Your task to perform on an android device: Do I have any events tomorrow? Image 0: 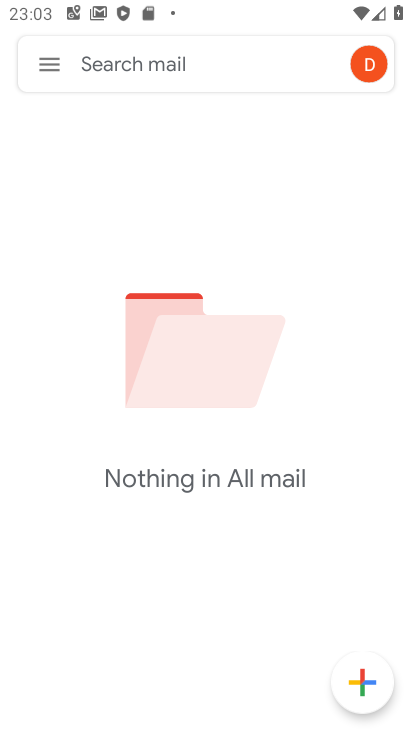
Step 0: press home button
Your task to perform on an android device: Do I have any events tomorrow? Image 1: 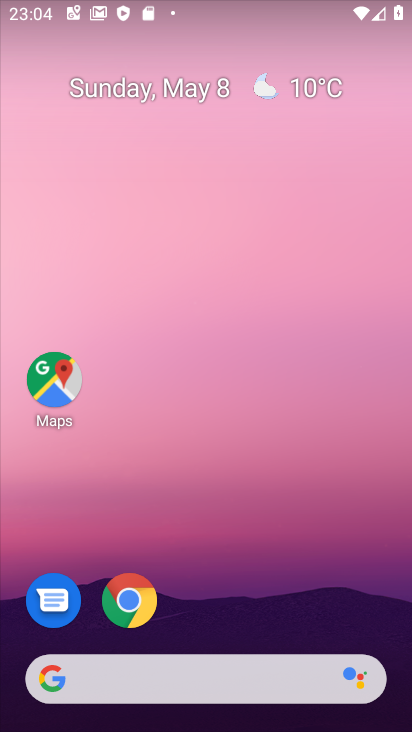
Step 1: click (197, 108)
Your task to perform on an android device: Do I have any events tomorrow? Image 2: 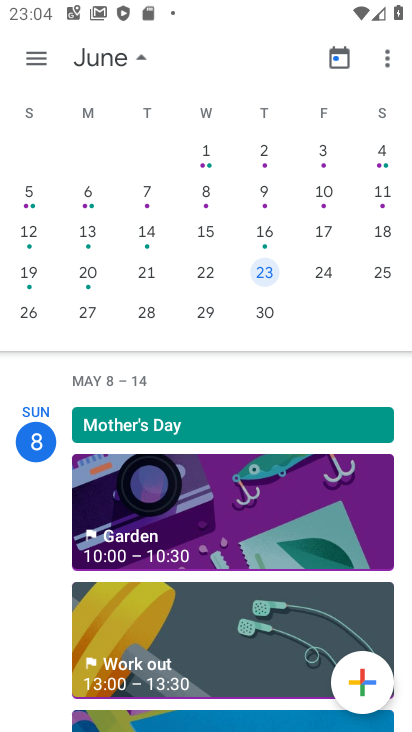
Step 2: drag from (38, 722) to (113, 170)
Your task to perform on an android device: Do I have any events tomorrow? Image 3: 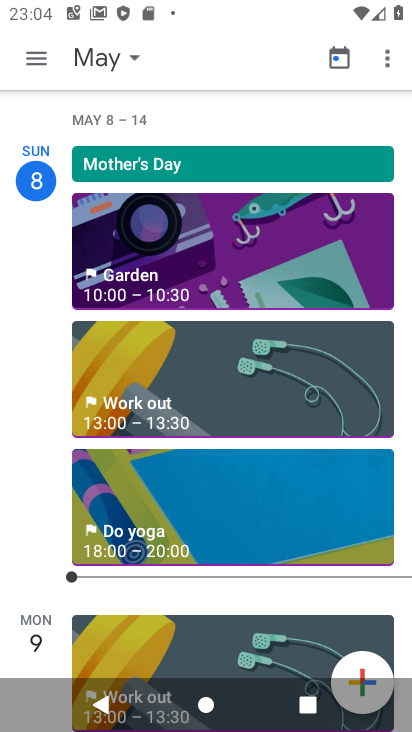
Step 3: drag from (41, 648) to (196, 85)
Your task to perform on an android device: Do I have any events tomorrow? Image 4: 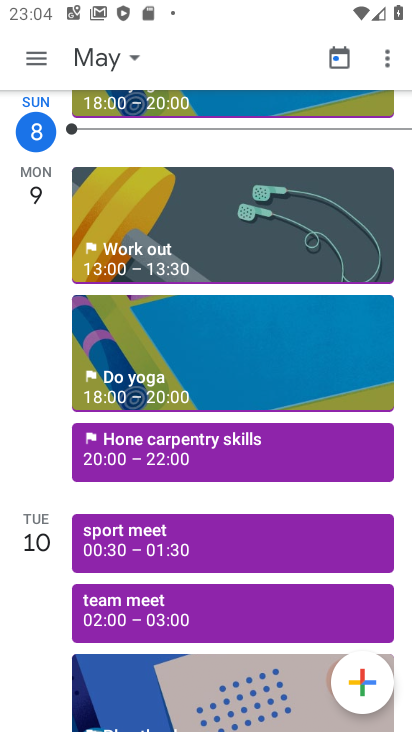
Step 4: click (143, 559)
Your task to perform on an android device: Do I have any events tomorrow? Image 5: 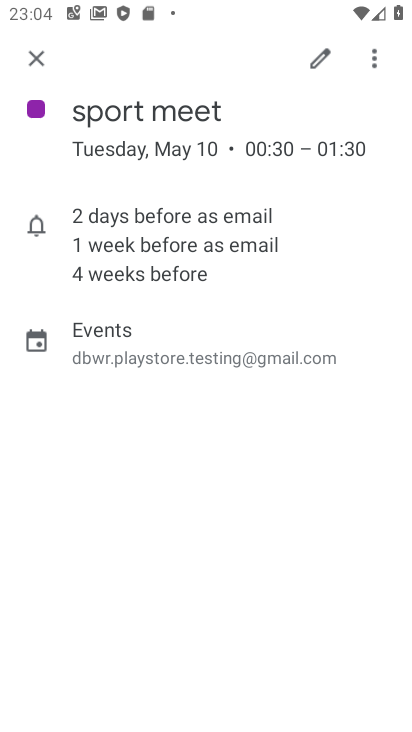
Step 5: task complete